Your task to perform on an android device: Open display settings Image 0: 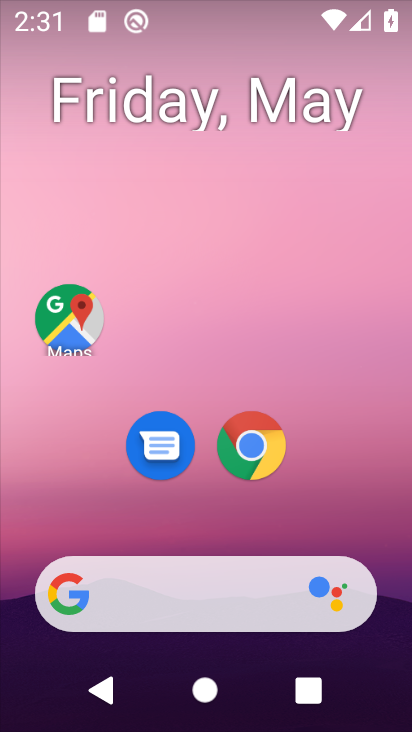
Step 0: drag from (334, 117) to (342, 81)
Your task to perform on an android device: Open display settings Image 1: 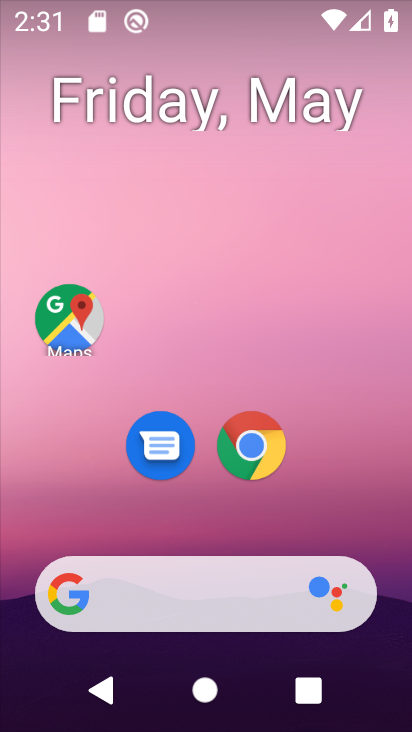
Step 1: drag from (176, 533) to (39, 14)
Your task to perform on an android device: Open display settings Image 2: 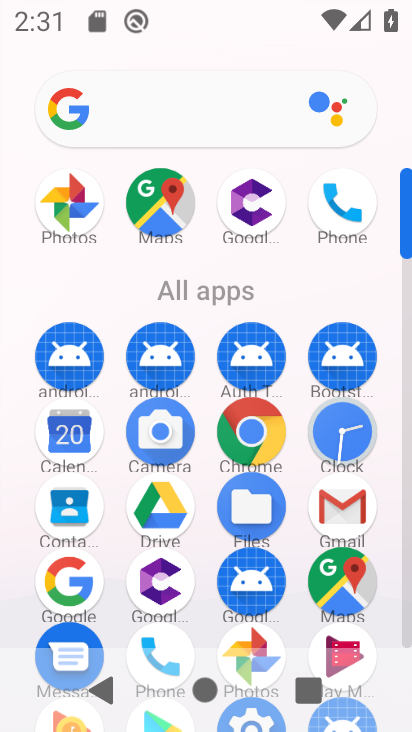
Step 2: drag from (204, 629) to (201, 309)
Your task to perform on an android device: Open display settings Image 3: 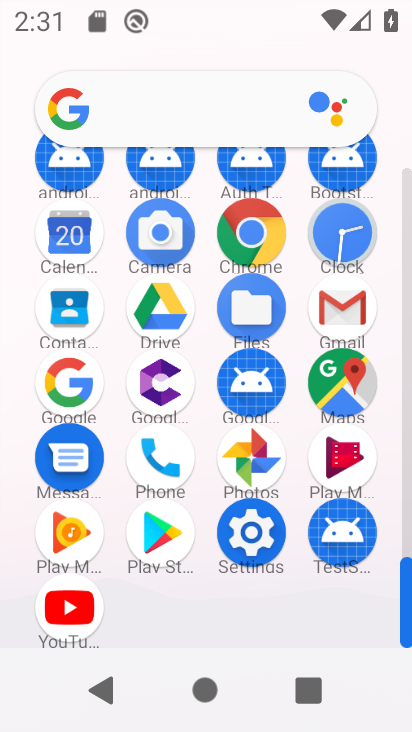
Step 3: click (238, 526)
Your task to perform on an android device: Open display settings Image 4: 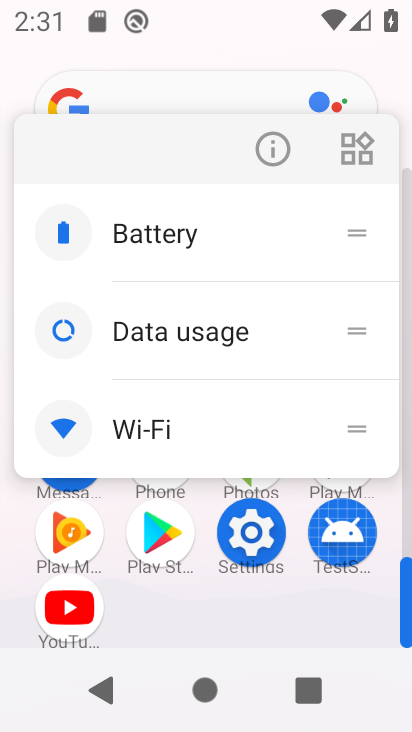
Step 4: click (267, 163)
Your task to perform on an android device: Open display settings Image 5: 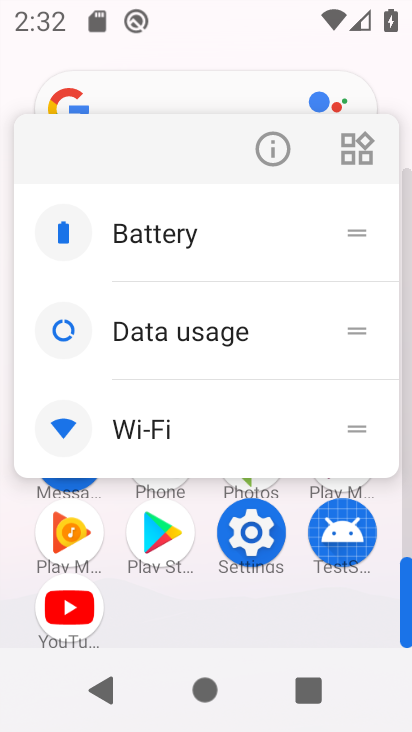
Step 5: click (267, 163)
Your task to perform on an android device: Open display settings Image 6: 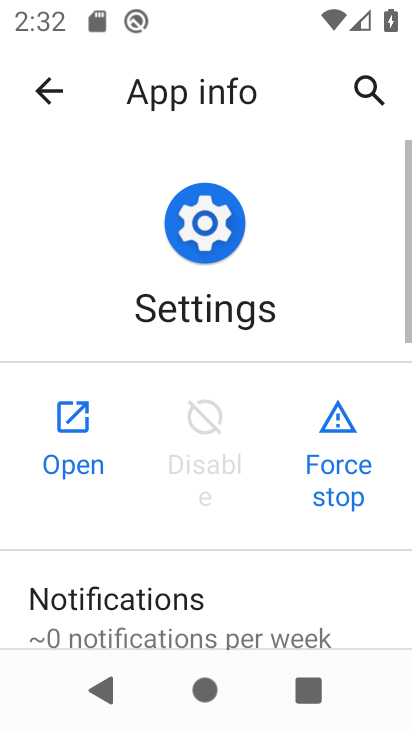
Step 6: click (64, 416)
Your task to perform on an android device: Open display settings Image 7: 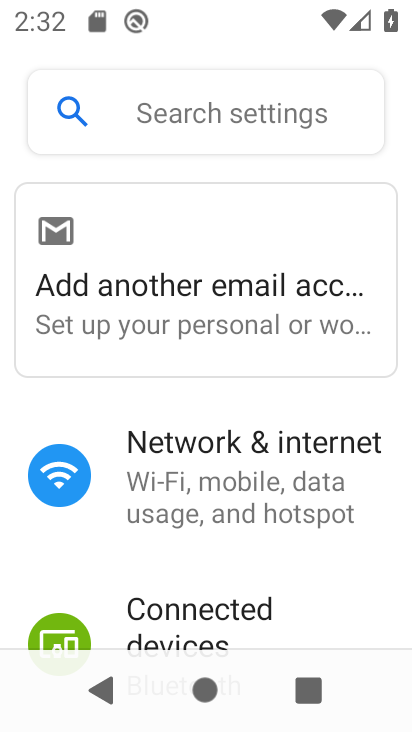
Step 7: drag from (185, 510) to (272, 277)
Your task to perform on an android device: Open display settings Image 8: 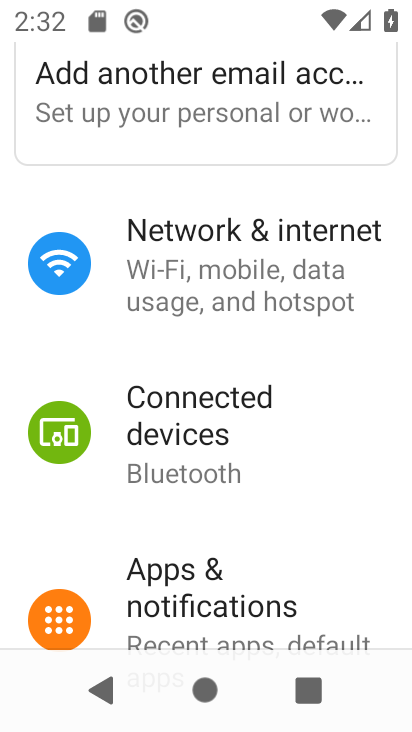
Step 8: drag from (226, 542) to (285, 149)
Your task to perform on an android device: Open display settings Image 9: 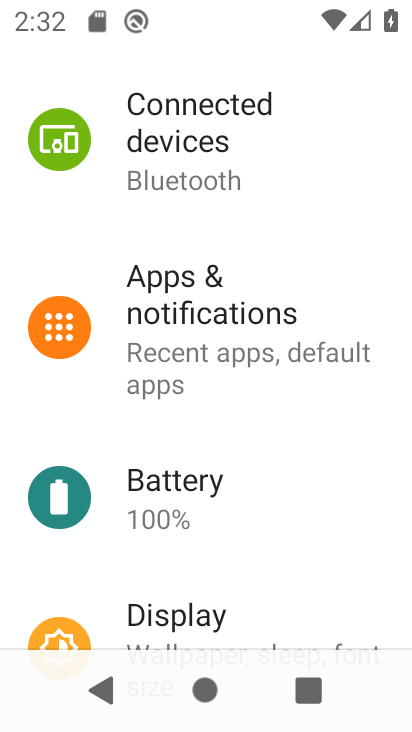
Step 9: drag from (212, 581) to (257, 219)
Your task to perform on an android device: Open display settings Image 10: 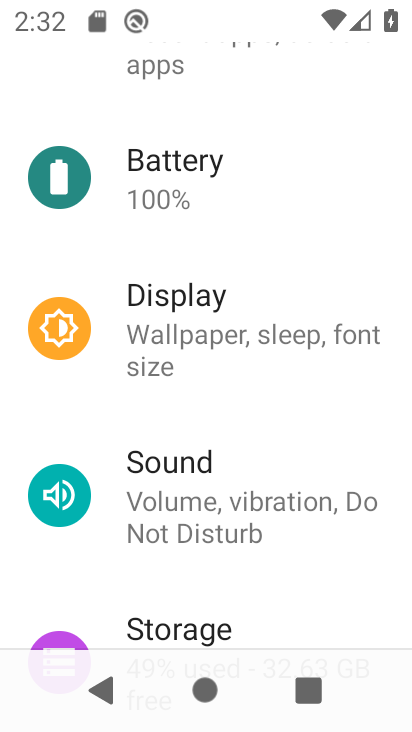
Step 10: click (183, 309)
Your task to perform on an android device: Open display settings Image 11: 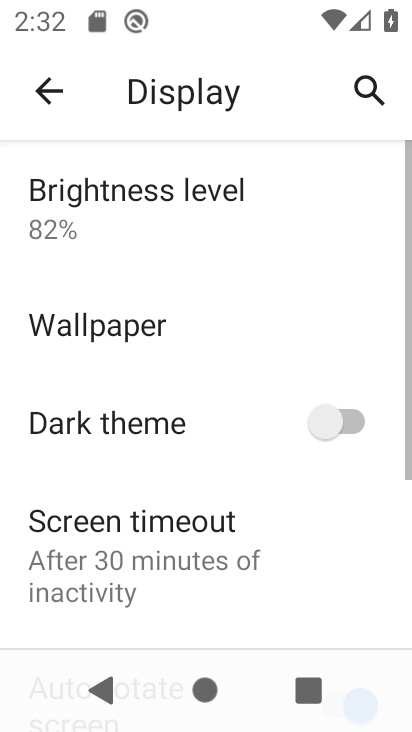
Step 11: task complete